Your task to perform on an android device: check google app version Image 0: 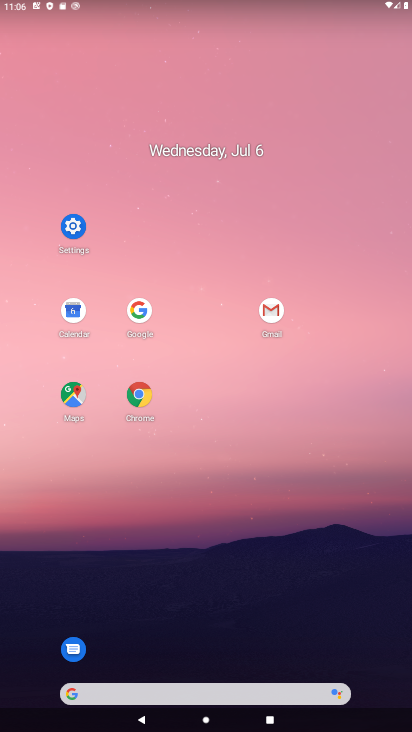
Step 0: click (137, 309)
Your task to perform on an android device: check google app version Image 1: 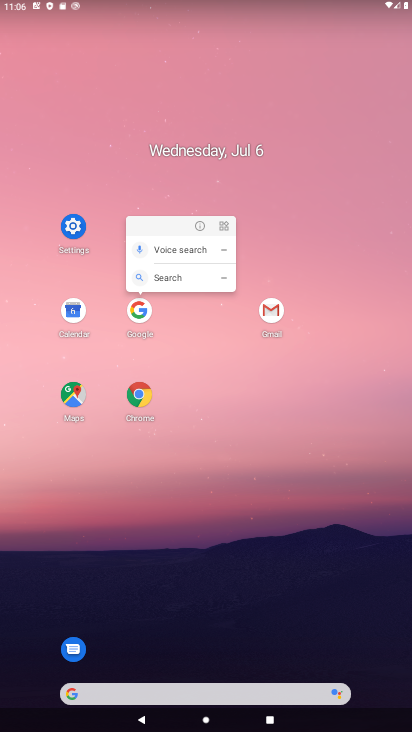
Step 1: click (201, 225)
Your task to perform on an android device: check google app version Image 2: 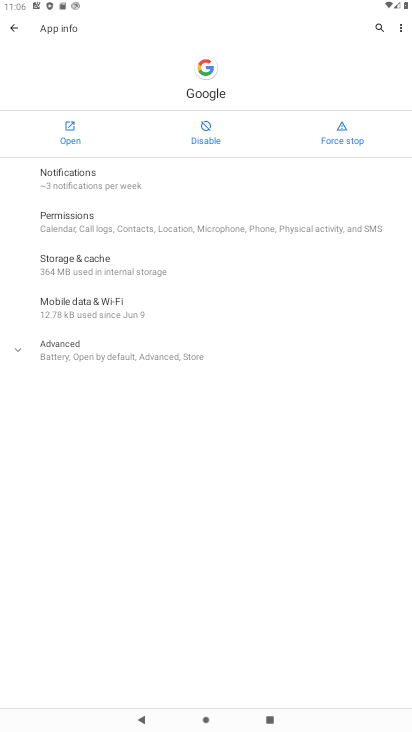
Step 2: click (125, 344)
Your task to perform on an android device: check google app version Image 3: 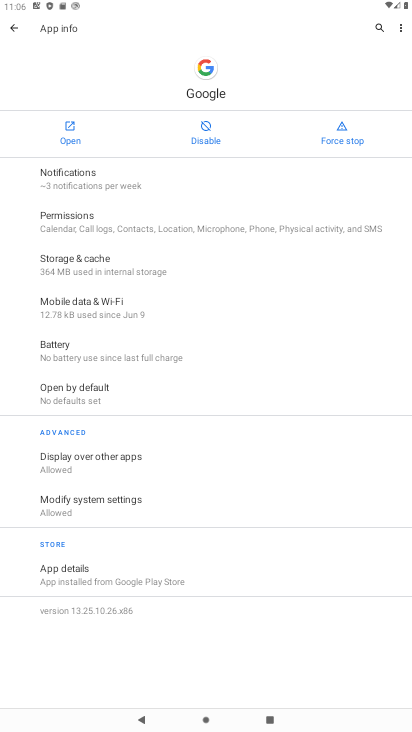
Step 3: task complete